Your task to perform on an android device: Set the phone to "Do not disturb". Image 0: 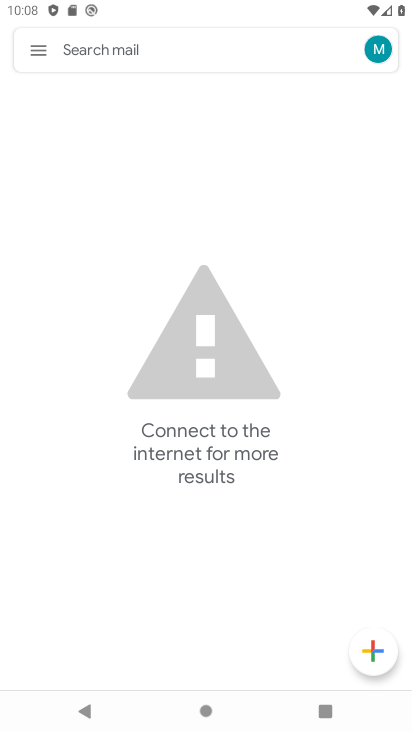
Step 0: press home button
Your task to perform on an android device: Set the phone to "Do not disturb". Image 1: 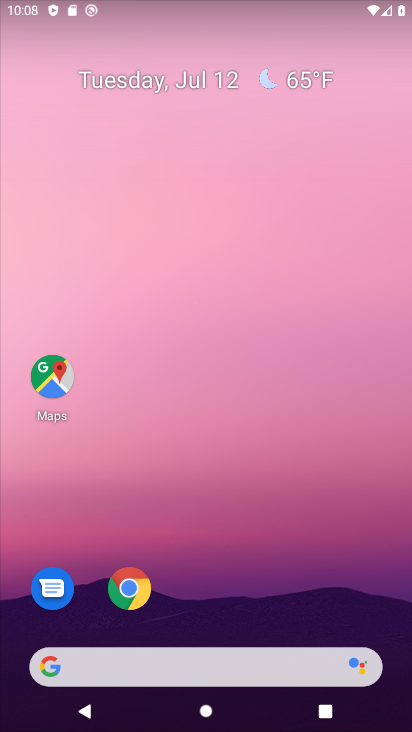
Step 1: drag from (29, 698) to (387, 18)
Your task to perform on an android device: Set the phone to "Do not disturb". Image 2: 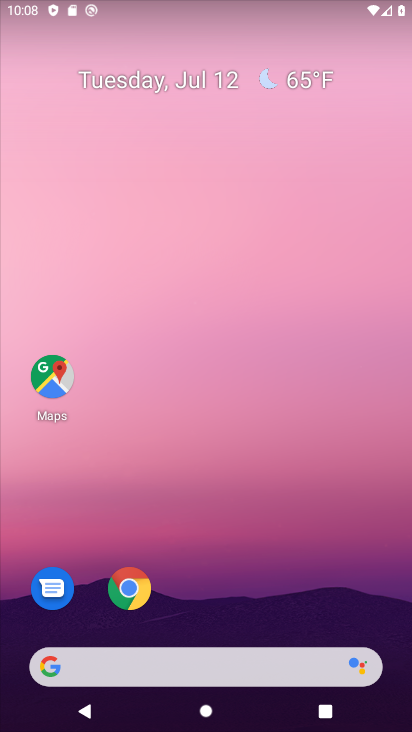
Step 2: drag from (25, 708) to (410, 18)
Your task to perform on an android device: Set the phone to "Do not disturb". Image 3: 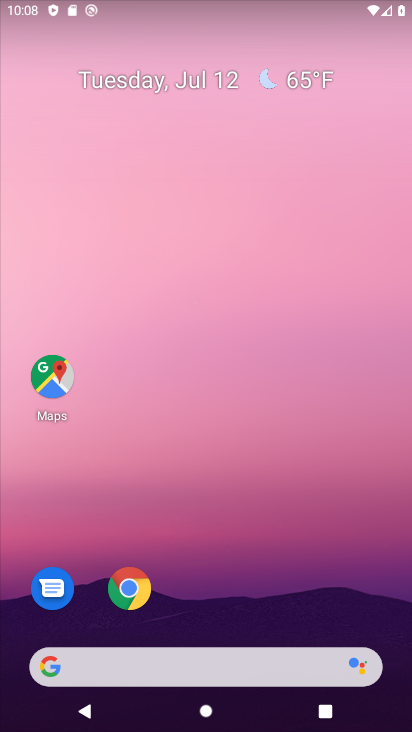
Step 3: drag from (60, 710) to (206, 188)
Your task to perform on an android device: Set the phone to "Do not disturb". Image 4: 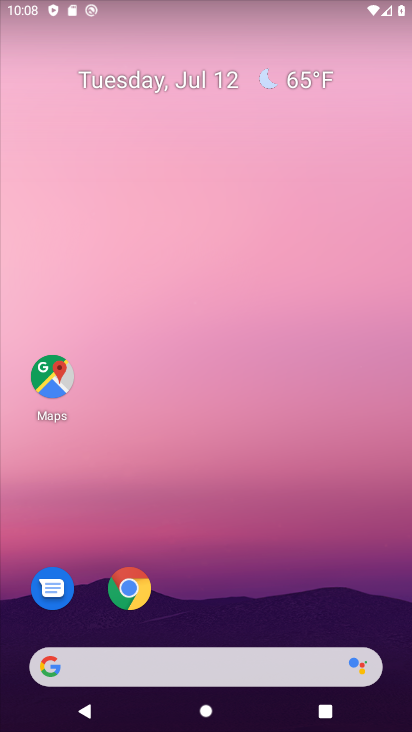
Step 4: drag from (29, 717) to (115, 33)
Your task to perform on an android device: Set the phone to "Do not disturb". Image 5: 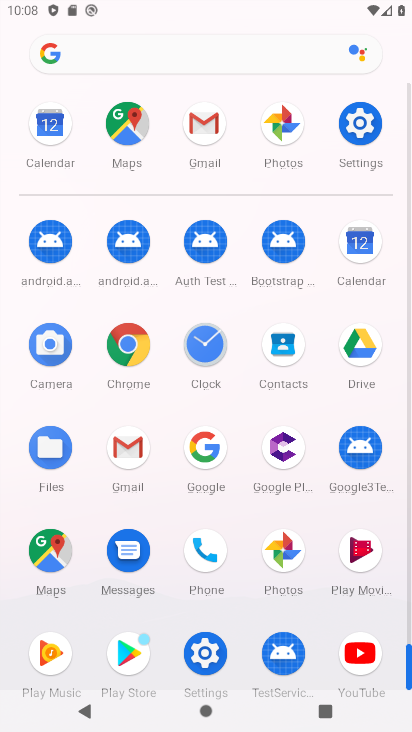
Step 5: click (192, 659)
Your task to perform on an android device: Set the phone to "Do not disturb". Image 6: 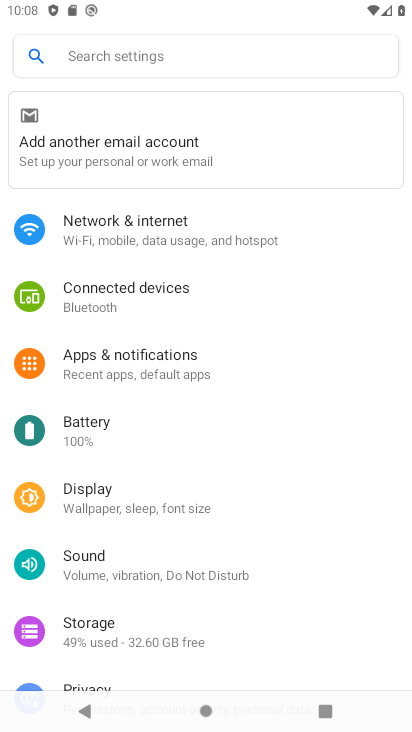
Step 6: click (139, 583)
Your task to perform on an android device: Set the phone to "Do not disturb". Image 7: 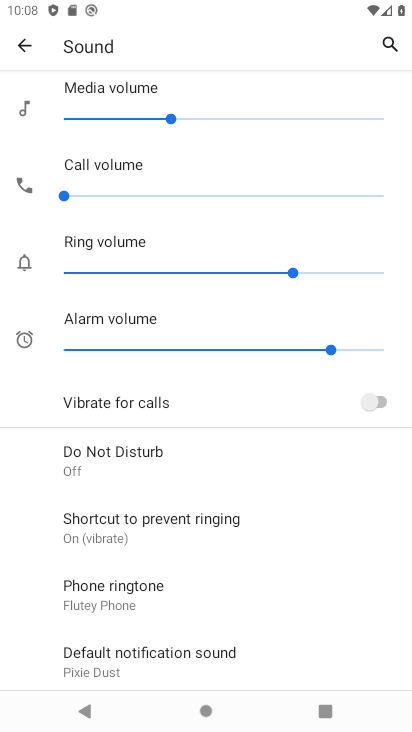
Step 7: click (100, 462)
Your task to perform on an android device: Set the phone to "Do not disturb". Image 8: 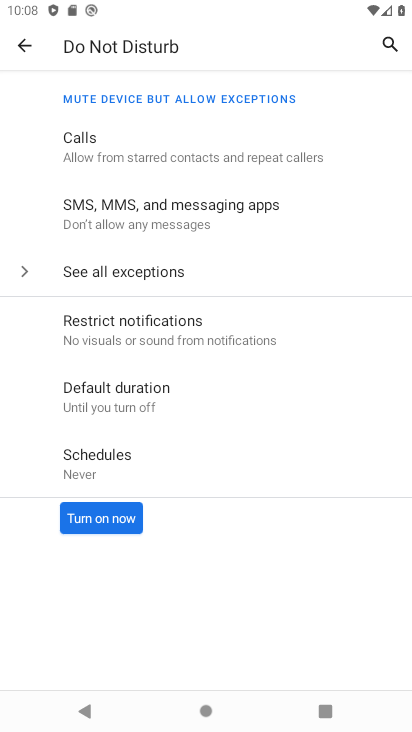
Step 8: task complete